Your task to perform on an android device: Go to eBay Image 0: 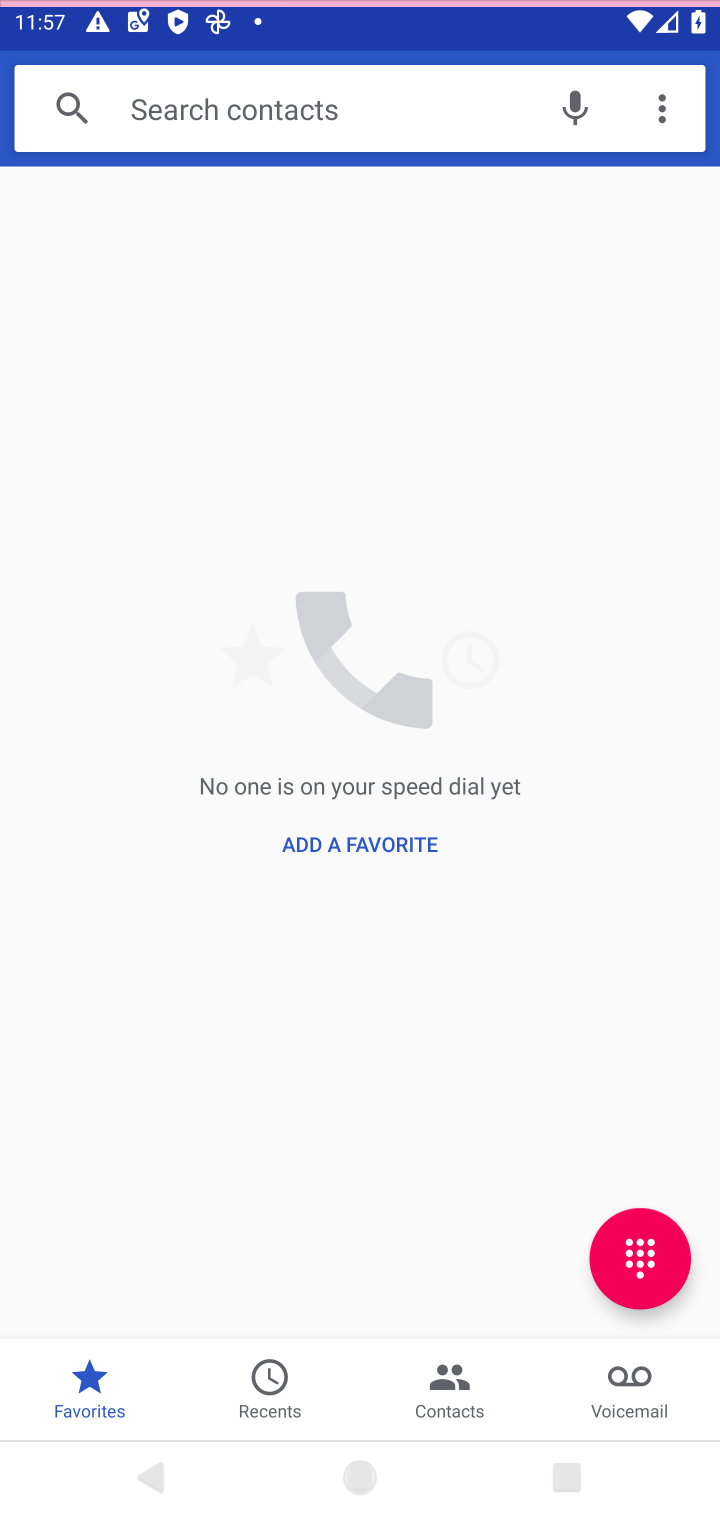
Step 0: press home button
Your task to perform on an android device: Go to eBay Image 1: 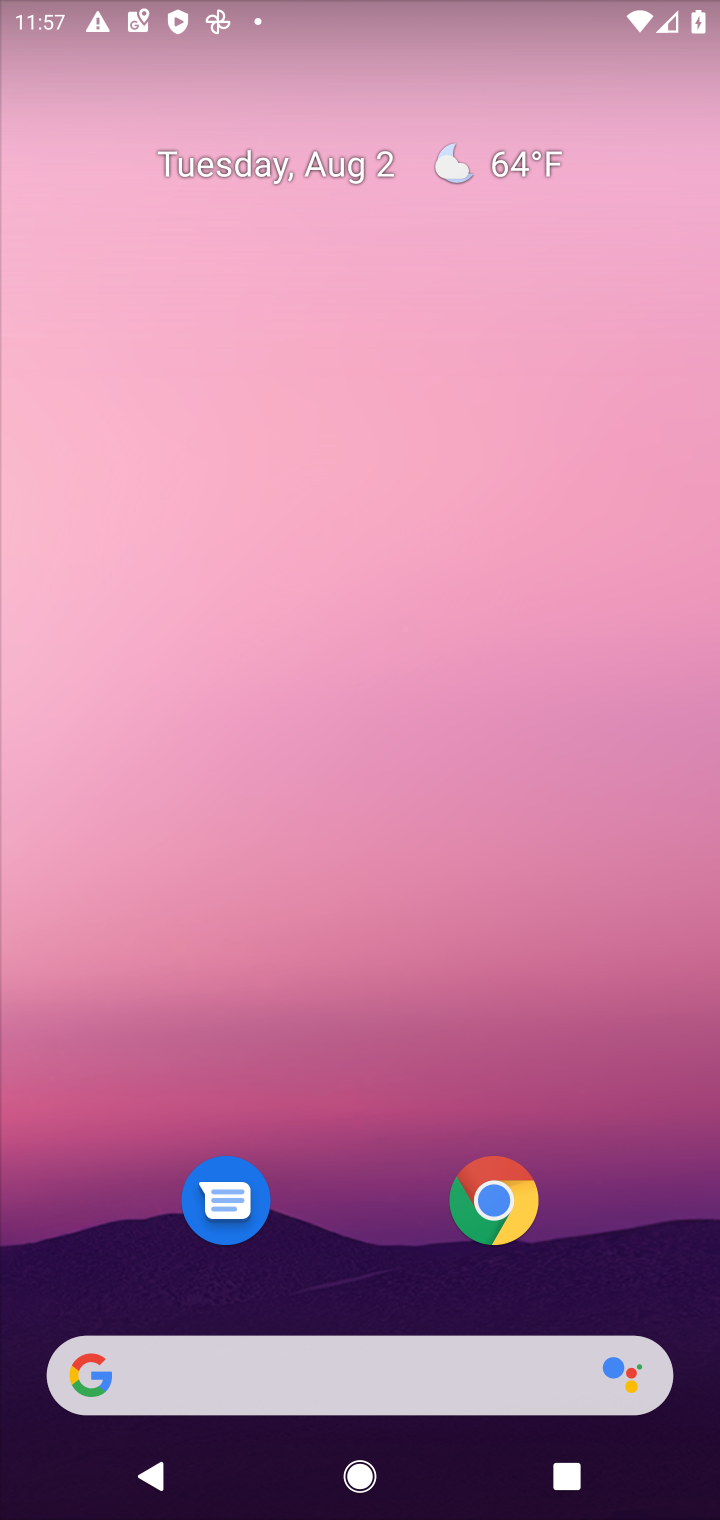
Step 1: click (501, 1202)
Your task to perform on an android device: Go to eBay Image 2: 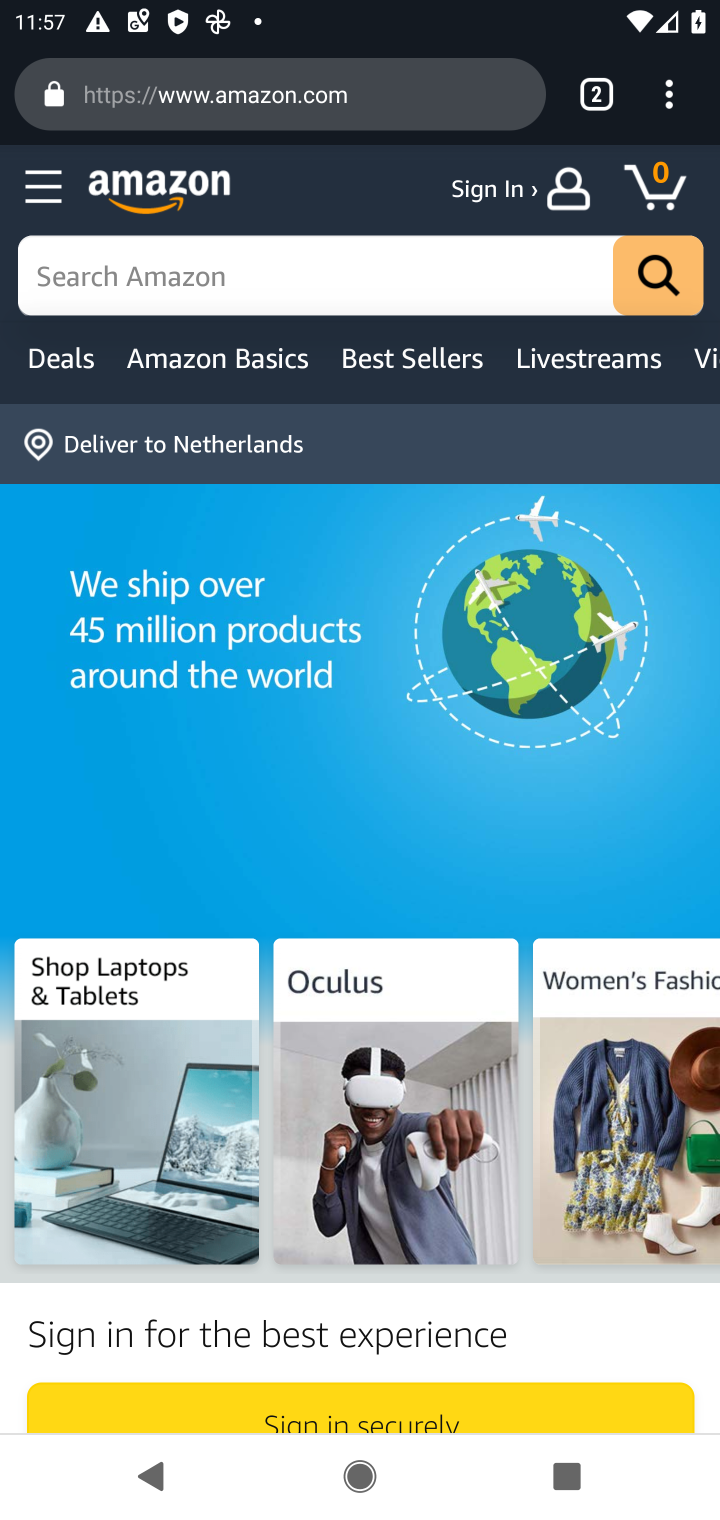
Step 2: click (403, 95)
Your task to perform on an android device: Go to eBay Image 3: 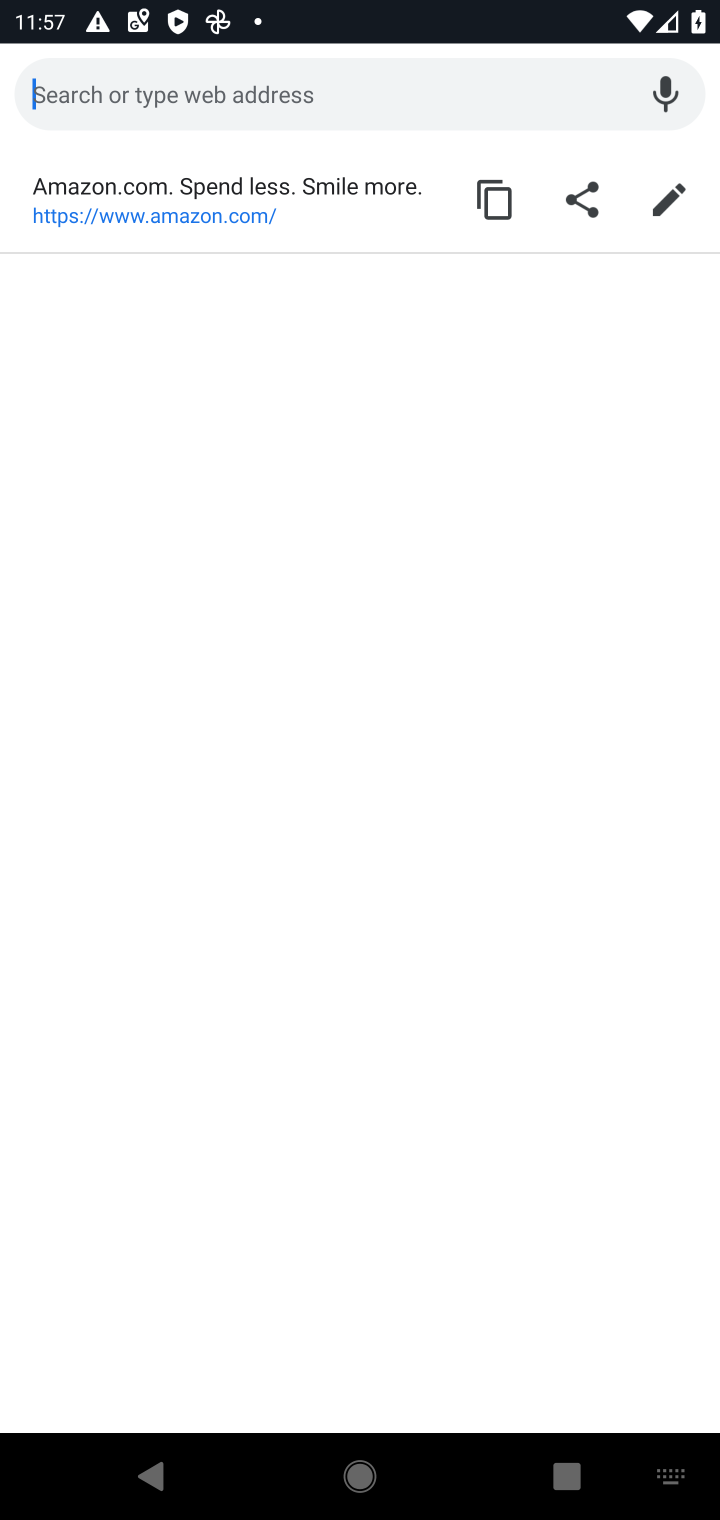
Step 3: type "eBay"
Your task to perform on an android device: Go to eBay Image 4: 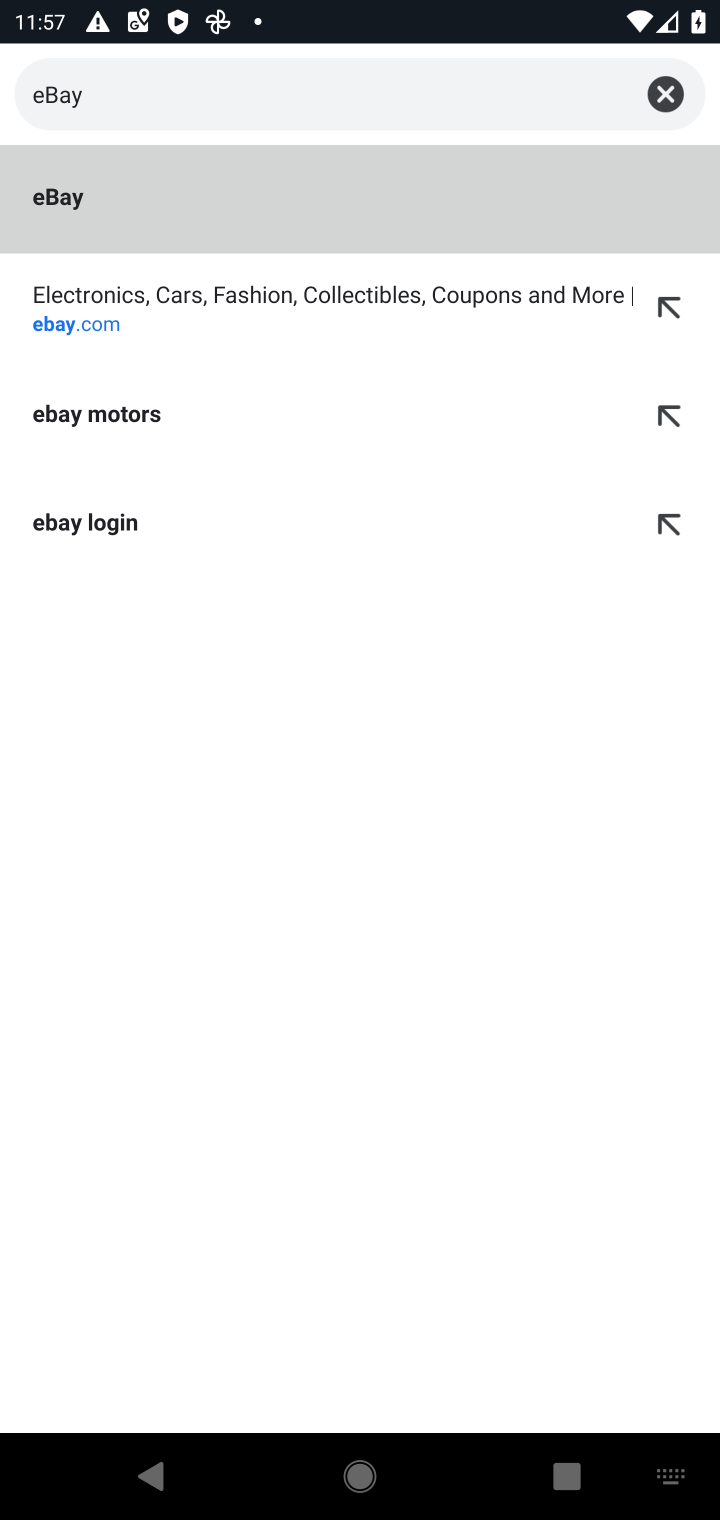
Step 4: click (90, 188)
Your task to perform on an android device: Go to eBay Image 5: 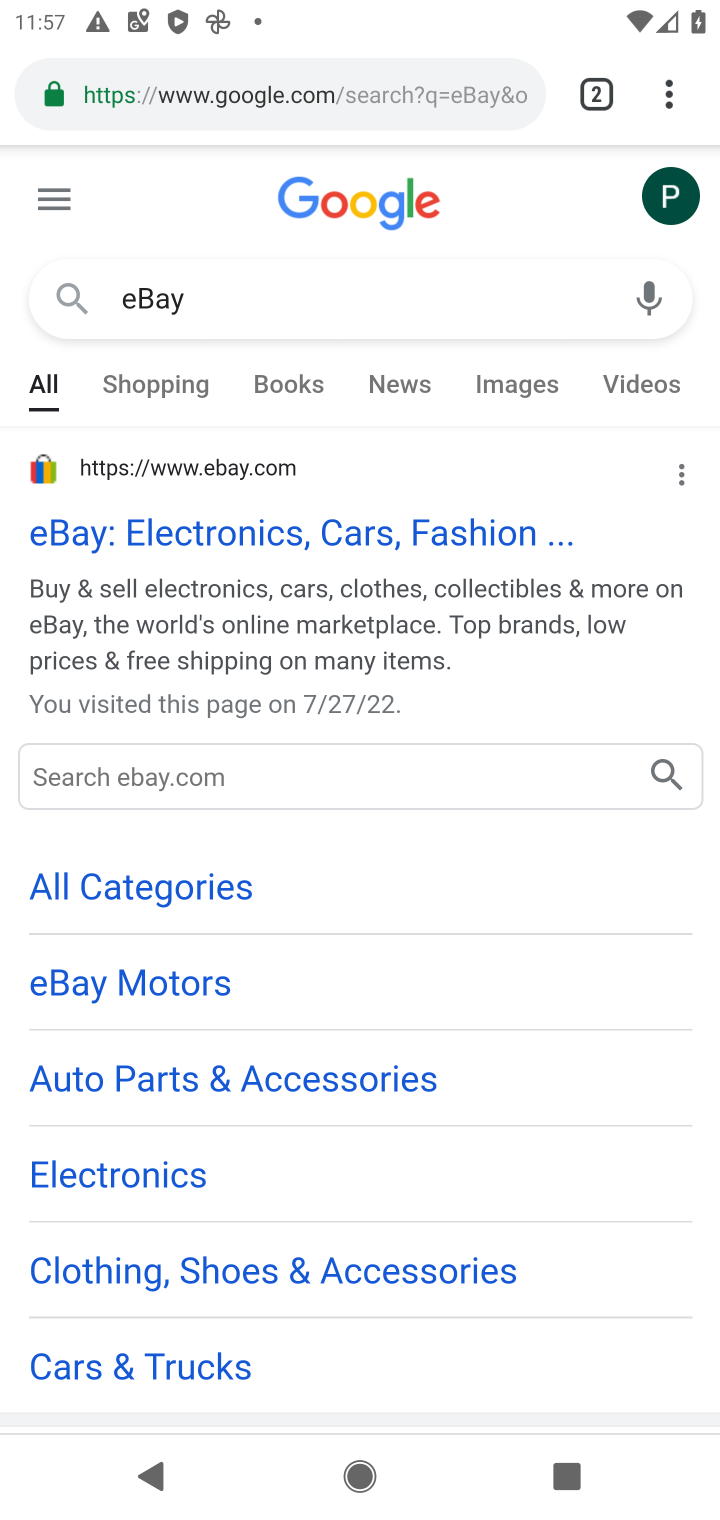
Step 5: click (172, 540)
Your task to perform on an android device: Go to eBay Image 6: 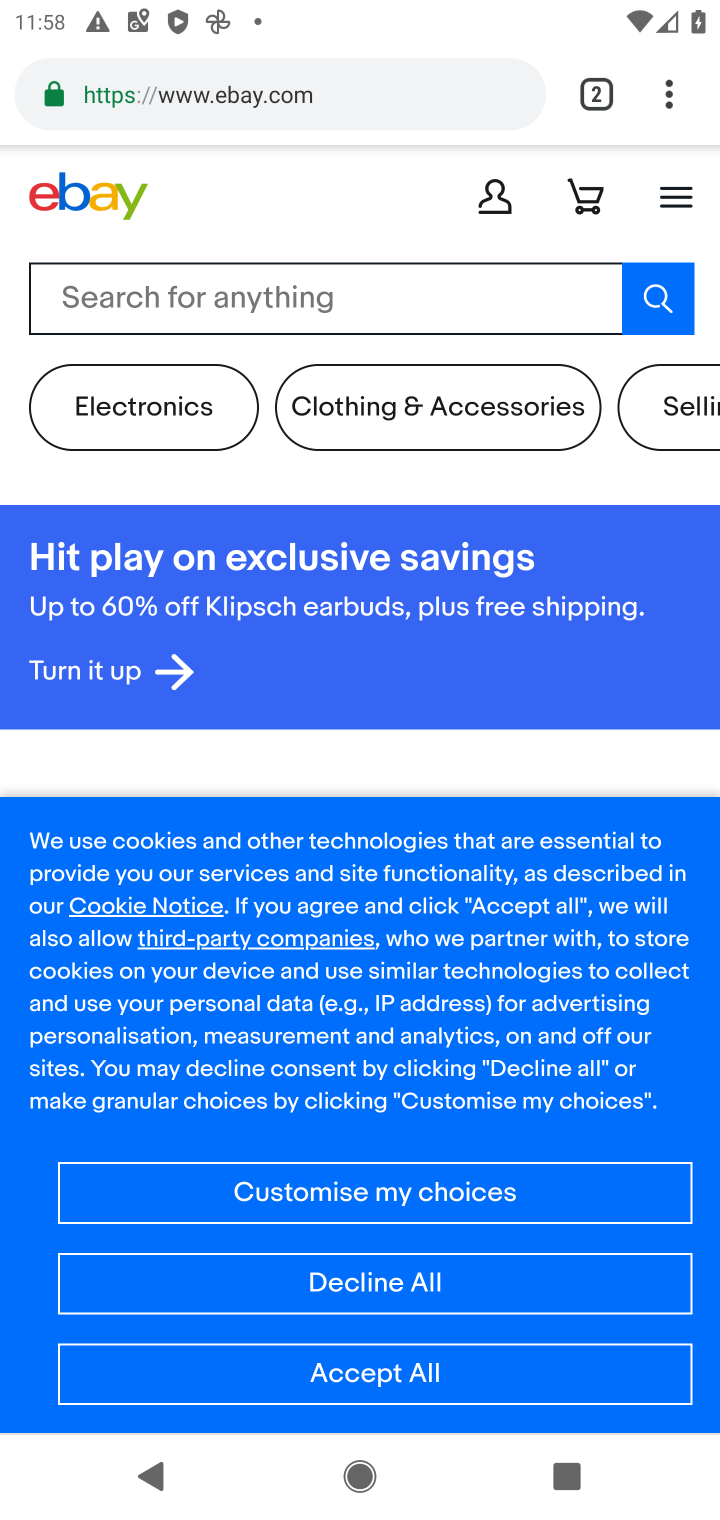
Step 6: click (378, 1372)
Your task to perform on an android device: Go to eBay Image 7: 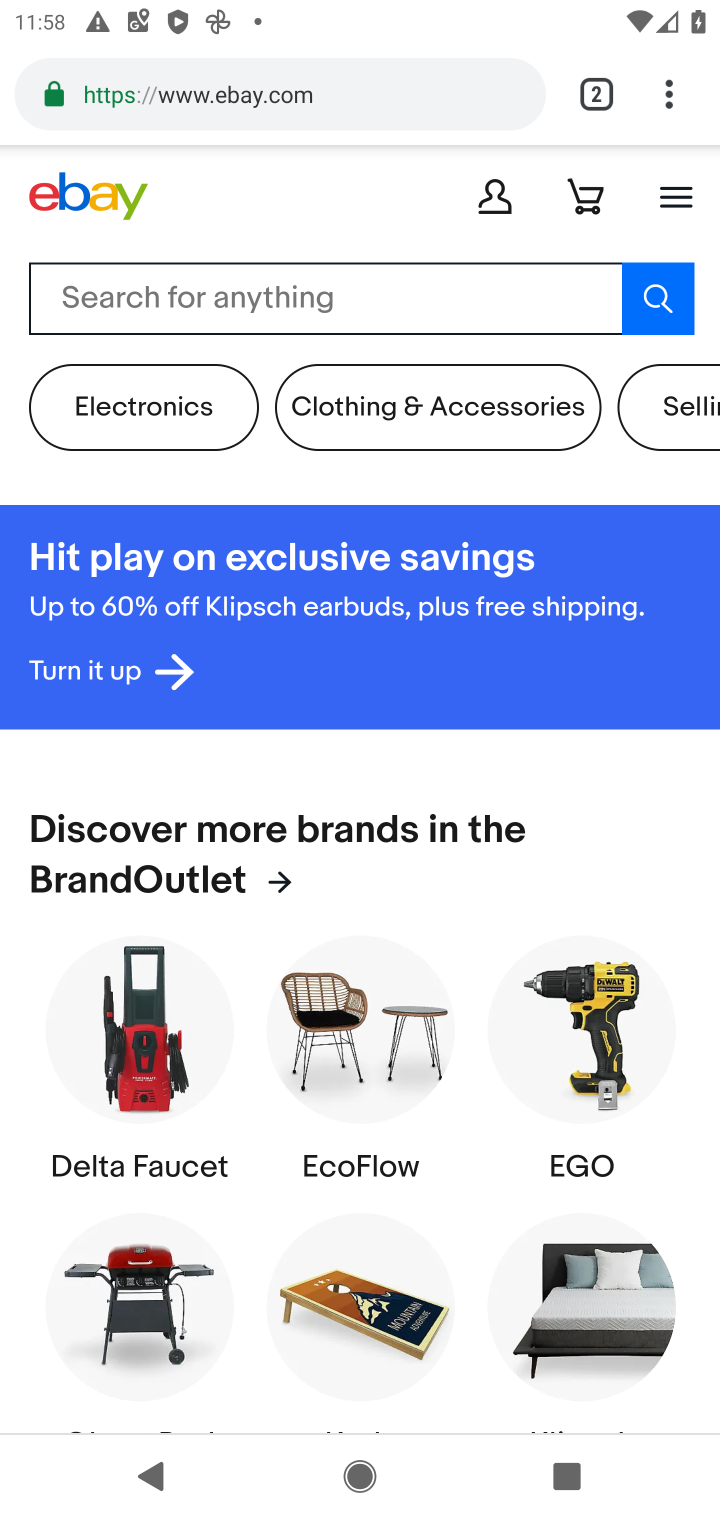
Step 7: task complete